Your task to perform on an android device: open the mobile data screen to see how much data has been used Image 0: 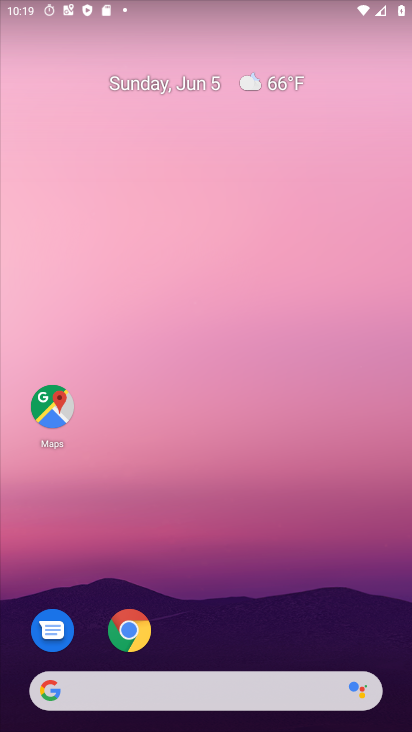
Step 0: drag from (230, 712) to (238, 26)
Your task to perform on an android device: open the mobile data screen to see how much data has been used Image 1: 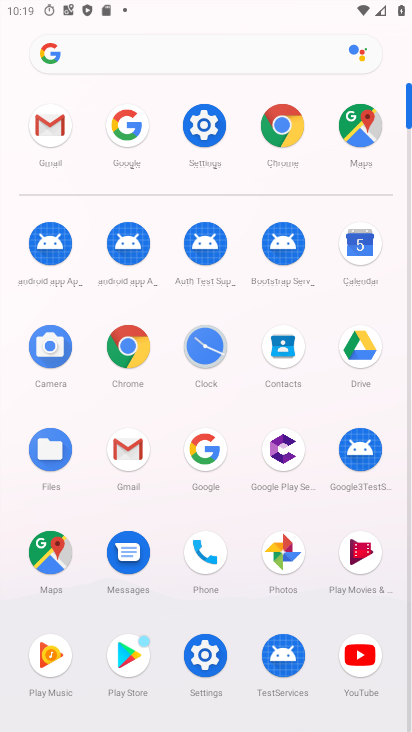
Step 1: click (202, 112)
Your task to perform on an android device: open the mobile data screen to see how much data has been used Image 2: 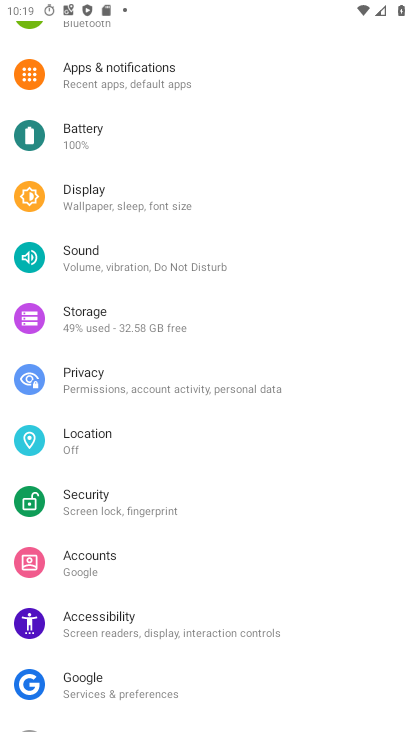
Step 2: drag from (212, 160) to (233, 450)
Your task to perform on an android device: open the mobile data screen to see how much data has been used Image 3: 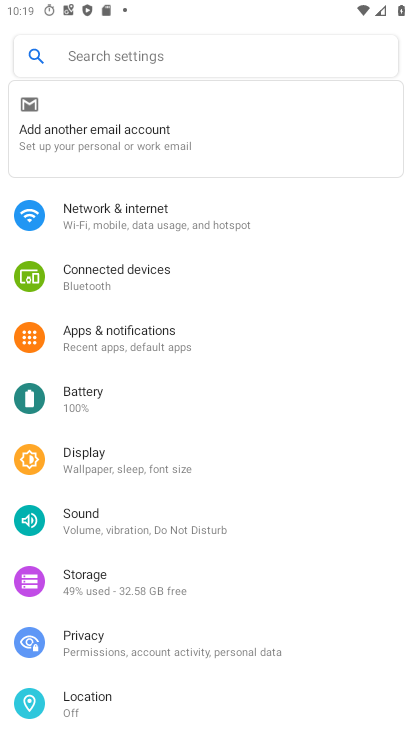
Step 3: click (129, 217)
Your task to perform on an android device: open the mobile data screen to see how much data has been used Image 4: 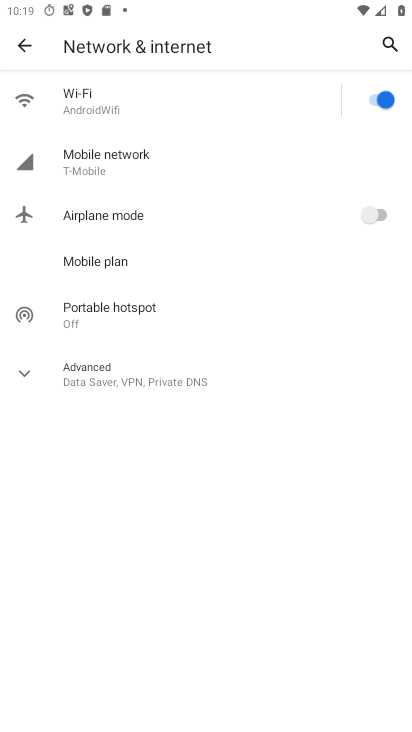
Step 4: click (99, 152)
Your task to perform on an android device: open the mobile data screen to see how much data has been used Image 5: 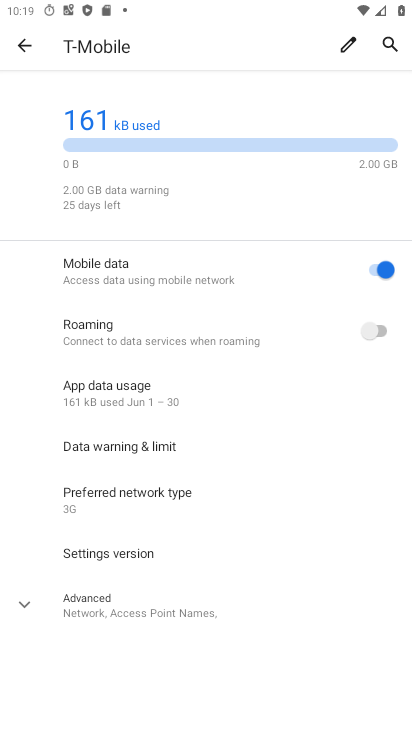
Step 5: click (99, 388)
Your task to perform on an android device: open the mobile data screen to see how much data has been used Image 6: 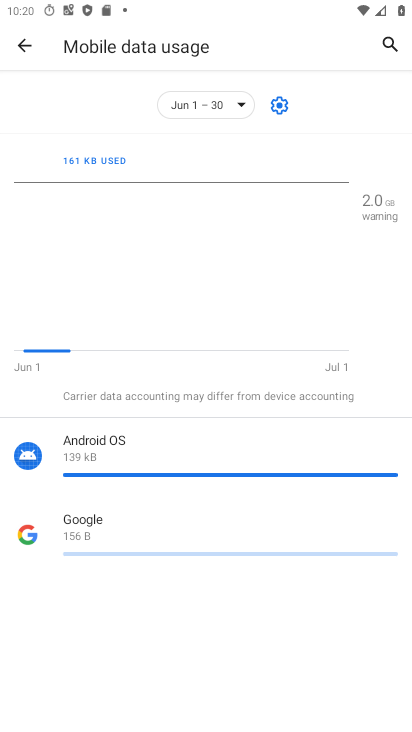
Step 6: task complete